Your task to perform on an android device: turn on bluetooth scan Image 0: 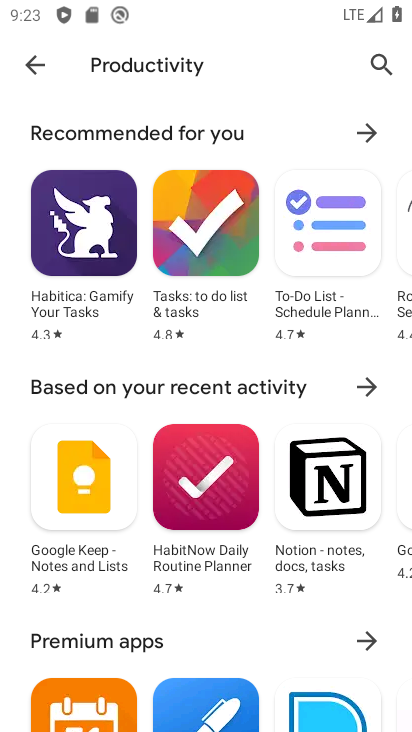
Step 0: press home button
Your task to perform on an android device: turn on bluetooth scan Image 1: 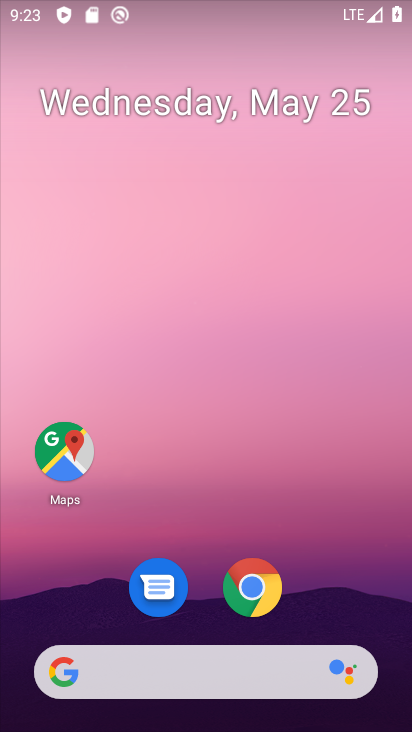
Step 1: drag from (181, 479) to (184, 77)
Your task to perform on an android device: turn on bluetooth scan Image 2: 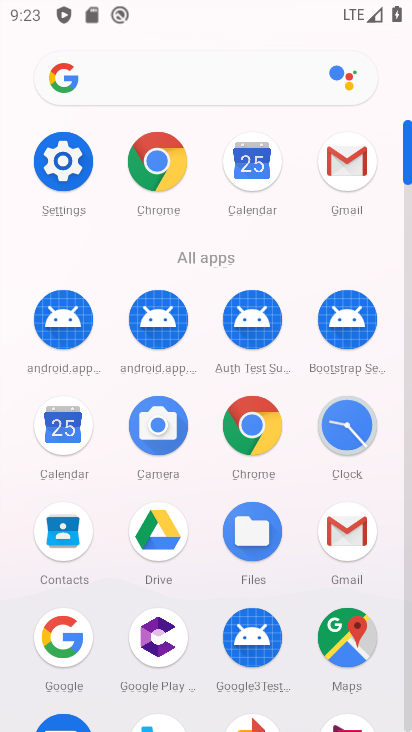
Step 2: click (65, 172)
Your task to perform on an android device: turn on bluetooth scan Image 3: 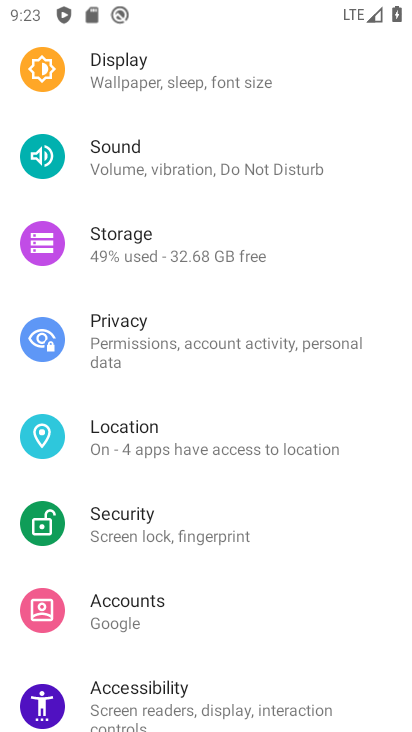
Step 3: click (173, 454)
Your task to perform on an android device: turn on bluetooth scan Image 4: 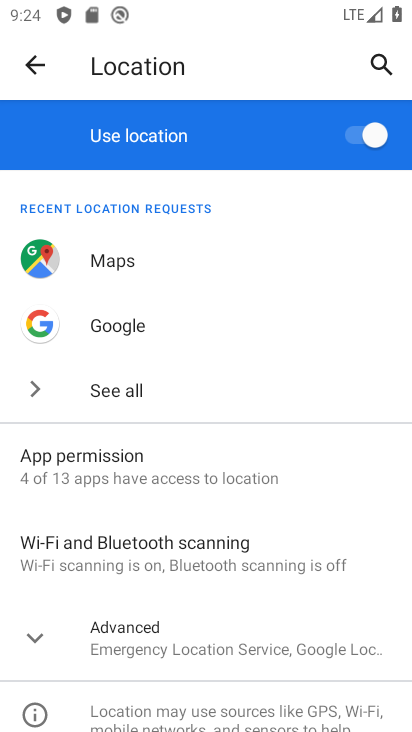
Step 4: drag from (135, 567) to (167, 320)
Your task to perform on an android device: turn on bluetooth scan Image 5: 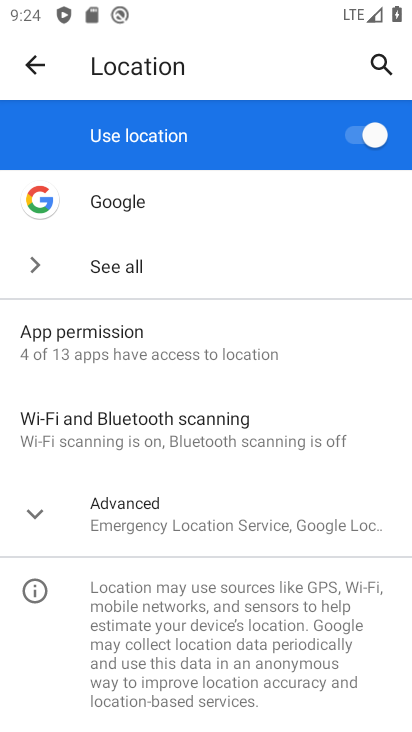
Step 5: click (149, 430)
Your task to perform on an android device: turn on bluetooth scan Image 6: 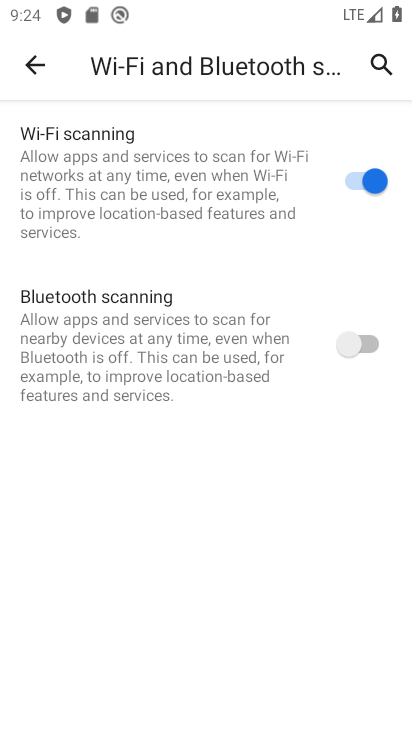
Step 6: click (377, 341)
Your task to perform on an android device: turn on bluetooth scan Image 7: 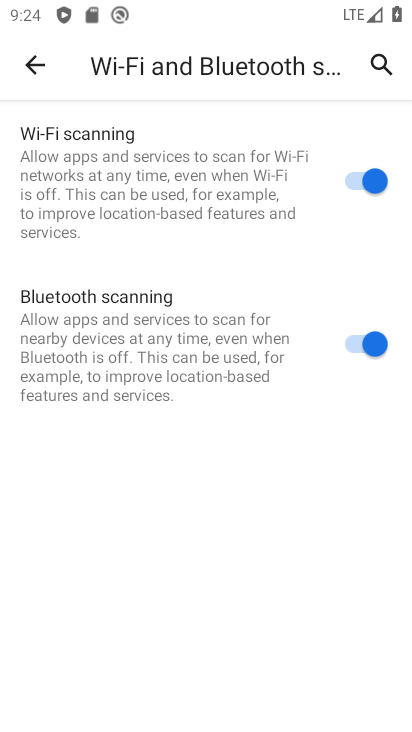
Step 7: task complete